Your task to perform on an android device: see sites visited before in the chrome app Image 0: 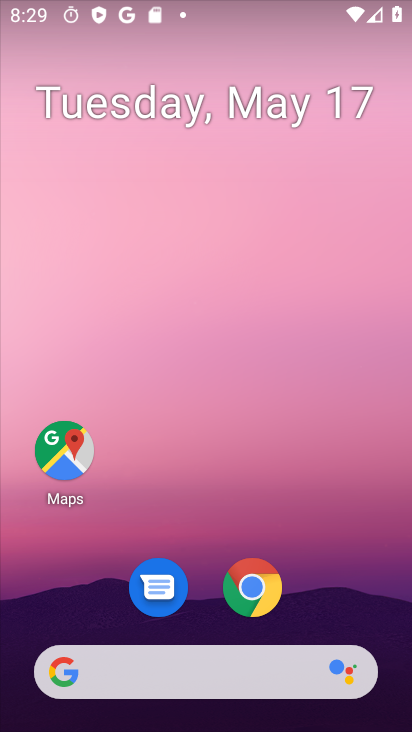
Step 0: drag from (305, 515) to (231, 278)
Your task to perform on an android device: see sites visited before in the chrome app Image 1: 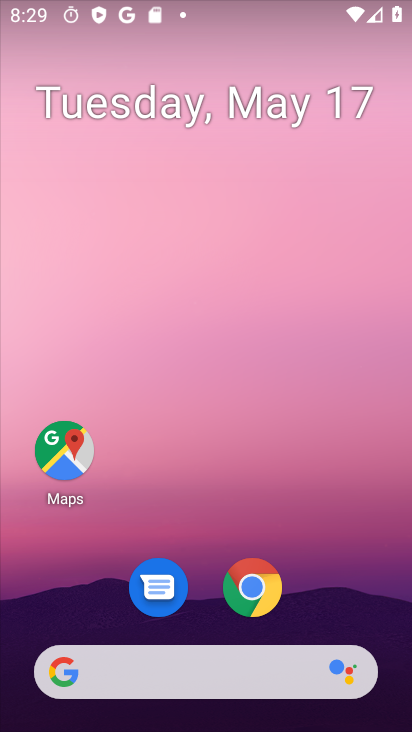
Step 1: drag from (335, 636) to (248, 328)
Your task to perform on an android device: see sites visited before in the chrome app Image 2: 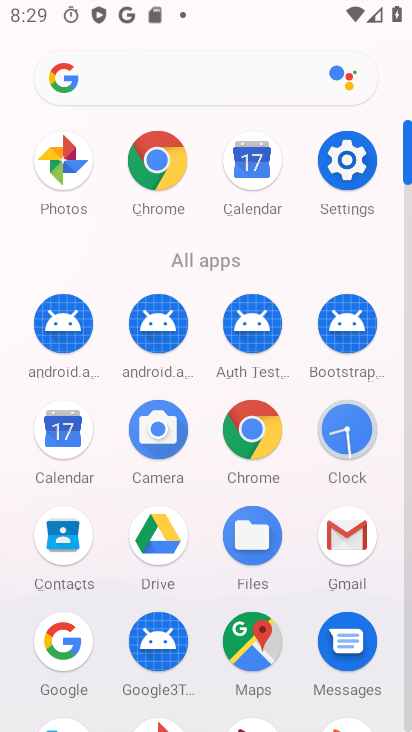
Step 2: click (252, 436)
Your task to perform on an android device: see sites visited before in the chrome app Image 3: 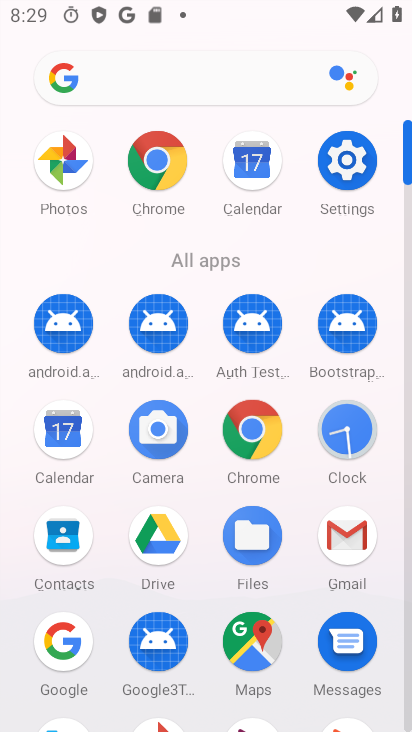
Step 3: click (252, 436)
Your task to perform on an android device: see sites visited before in the chrome app Image 4: 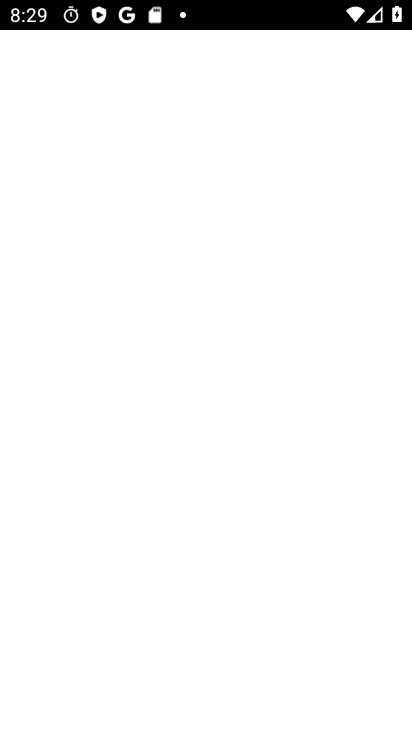
Step 4: click (252, 436)
Your task to perform on an android device: see sites visited before in the chrome app Image 5: 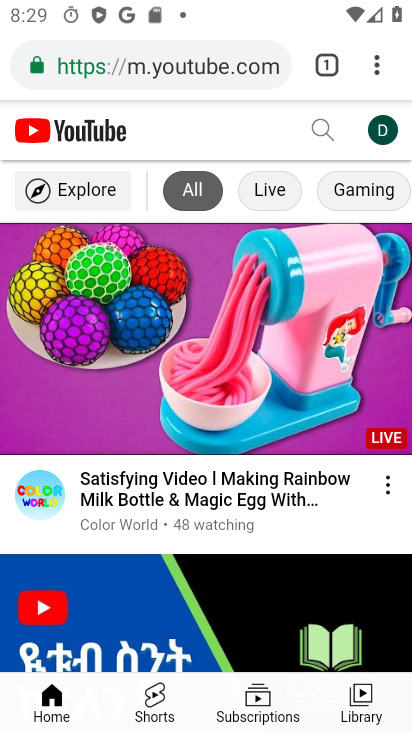
Step 5: press back button
Your task to perform on an android device: see sites visited before in the chrome app Image 6: 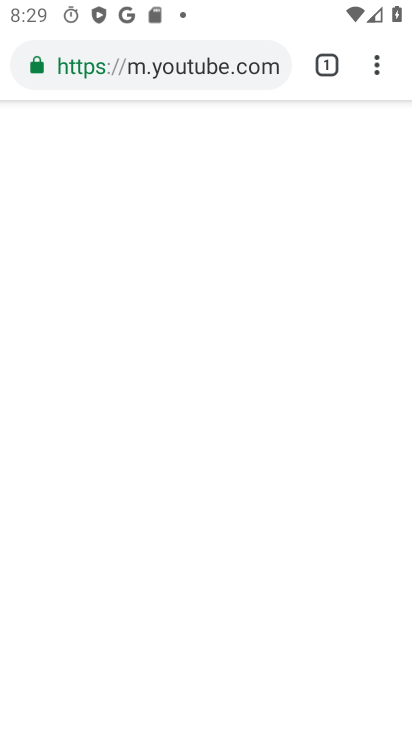
Step 6: press back button
Your task to perform on an android device: see sites visited before in the chrome app Image 7: 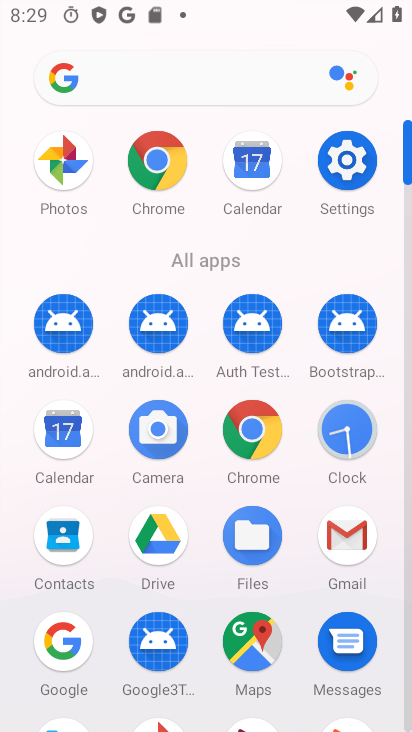
Step 7: click (166, 167)
Your task to perform on an android device: see sites visited before in the chrome app Image 8: 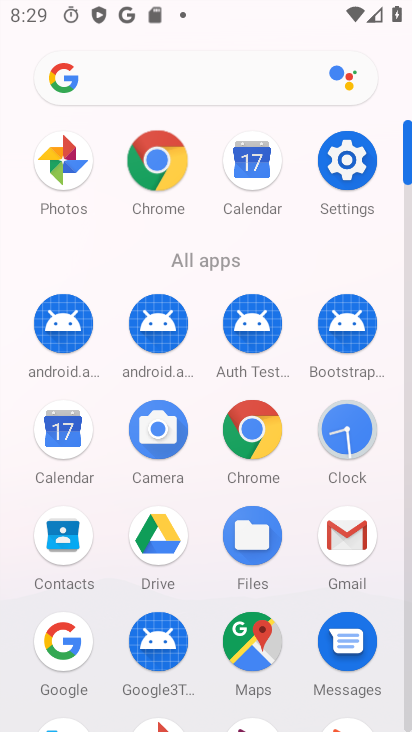
Step 8: click (166, 167)
Your task to perform on an android device: see sites visited before in the chrome app Image 9: 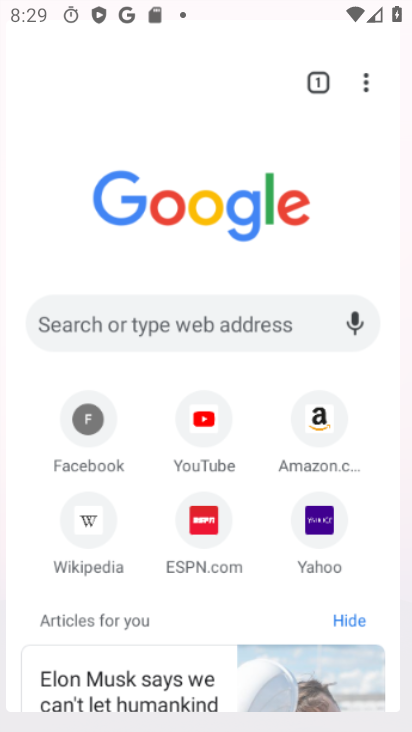
Step 9: click (166, 167)
Your task to perform on an android device: see sites visited before in the chrome app Image 10: 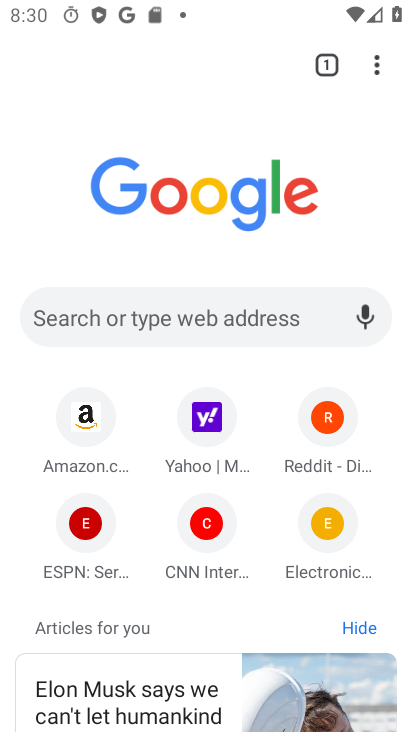
Step 10: drag from (372, 62) to (171, 295)
Your task to perform on an android device: see sites visited before in the chrome app Image 11: 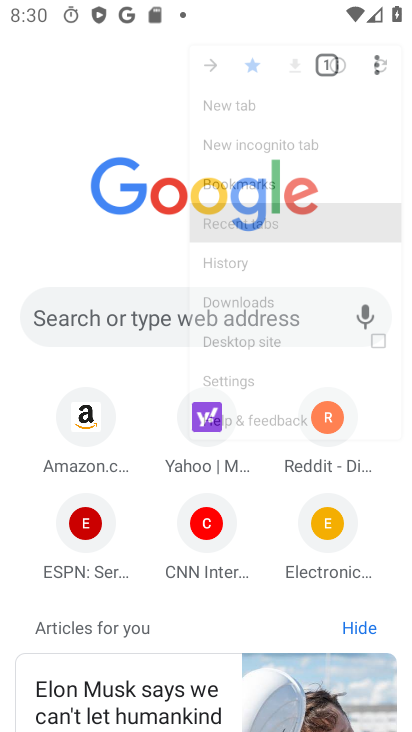
Step 11: click (171, 296)
Your task to perform on an android device: see sites visited before in the chrome app Image 12: 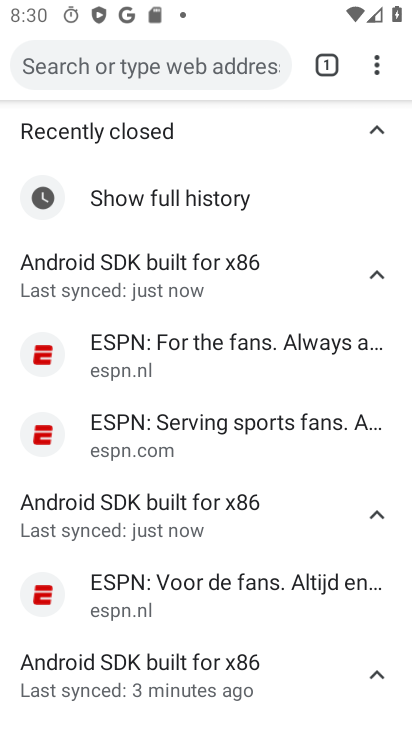
Step 12: task complete